Your task to perform on an android device: Open Yahoo.com Image 0: 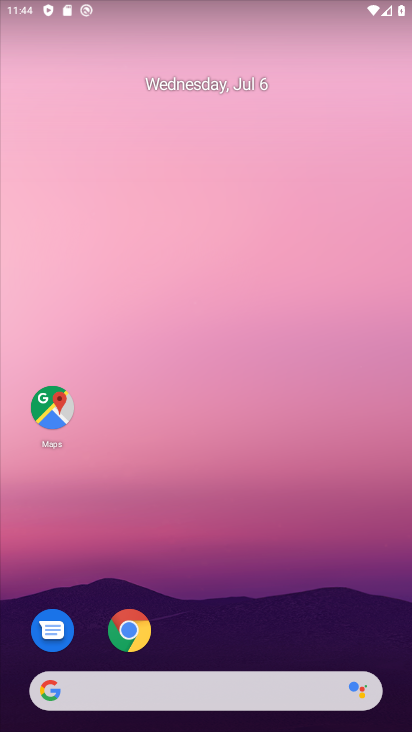
Step 0: click (129, 636)
Your task to perform on an android device: Open Yahoo.com Image 1: 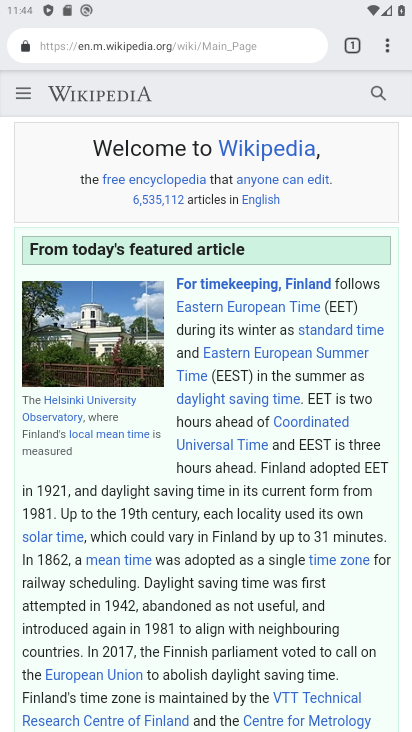
Step 1: press back button
Your task to perform on an android device: Open Yahoo.com Image 2: 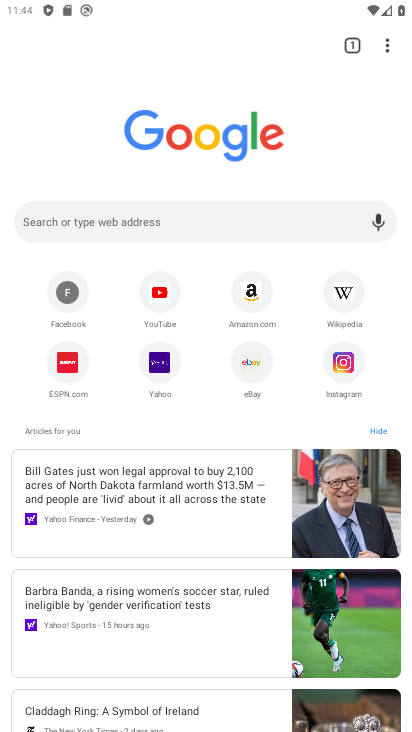
Step 2: click (144, 376)
Your task to perform on an android device: Open Yahoo.com Image 3: 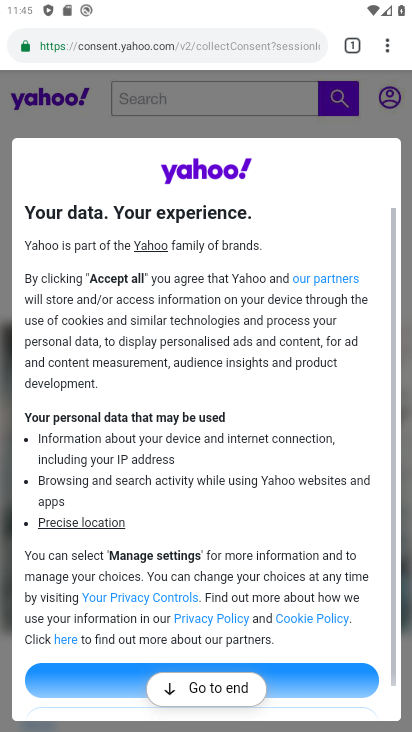
Step 3: drag from (225, 631) to (252, 508)
Your task to perform on an android device: Open Yahoo.com Image 4: 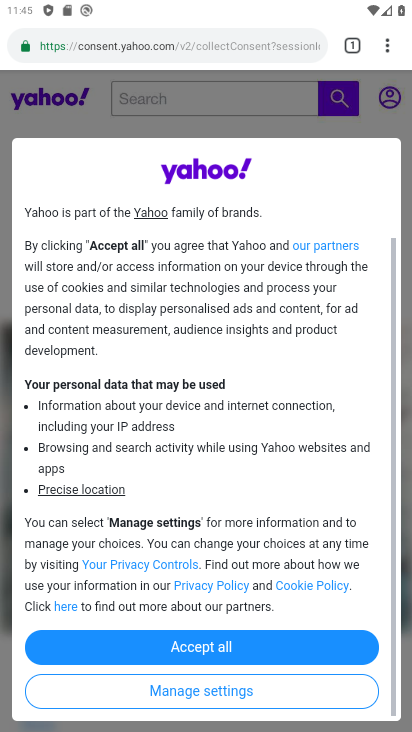
Step 4: click (231, 645)
Your task to perform on an android device: Open Yahoo.com Image 5: 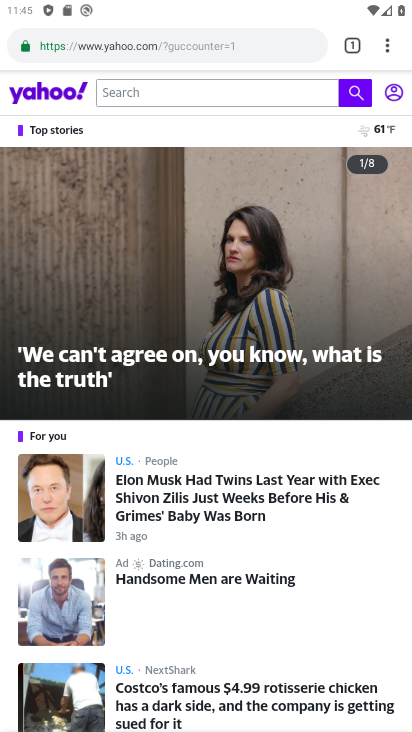
Step 5: task complete